Your task to perform on an android device: Open Youtube and go to the subscriptions tab Image 0: 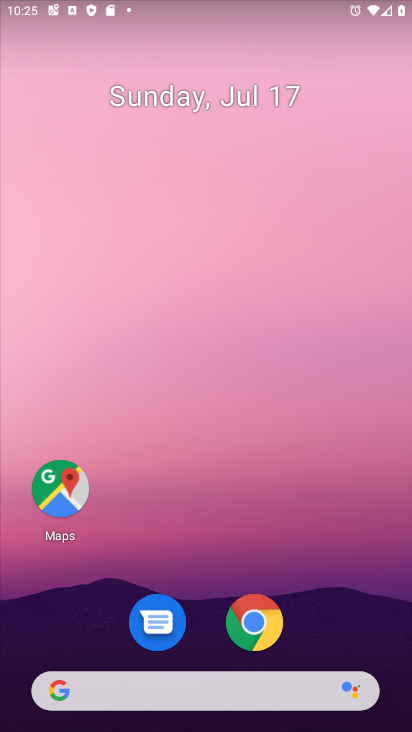
Step 0: drag from (206, 728) to (269, 59)
Your task to perform on an android device: Open Youtube and go to the subscriptions tab Image 1: 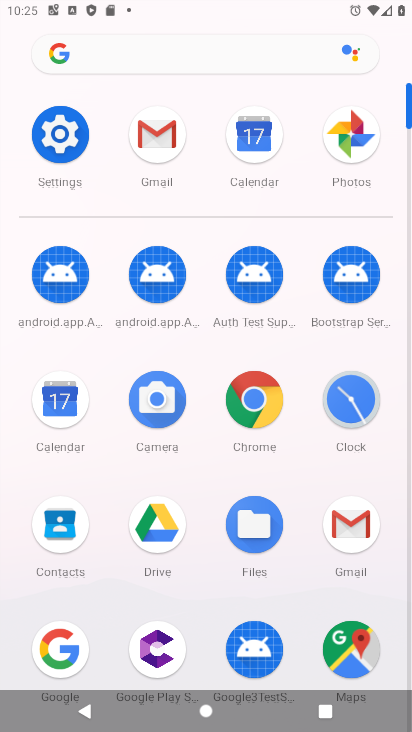
Step 1: drag from (252, 636) to (205, 85)
Your task to perform on an android device: Open Youtube and go to the subscriptions tab Image 2: 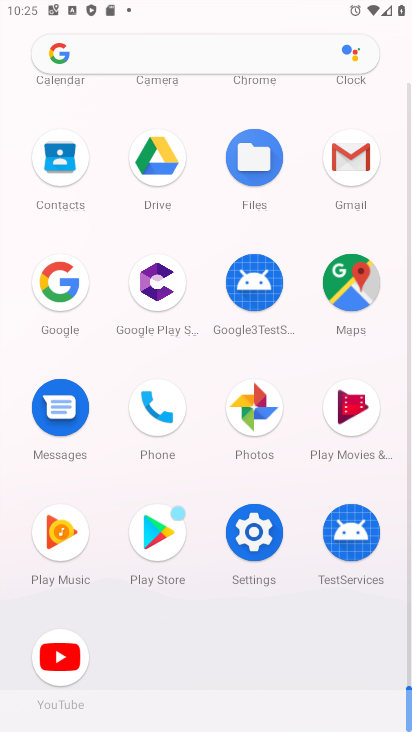
Step 2: click (63, 649)
Your task to perform on an android device: Open Youtube and go to the subscriptions tab Image 3: 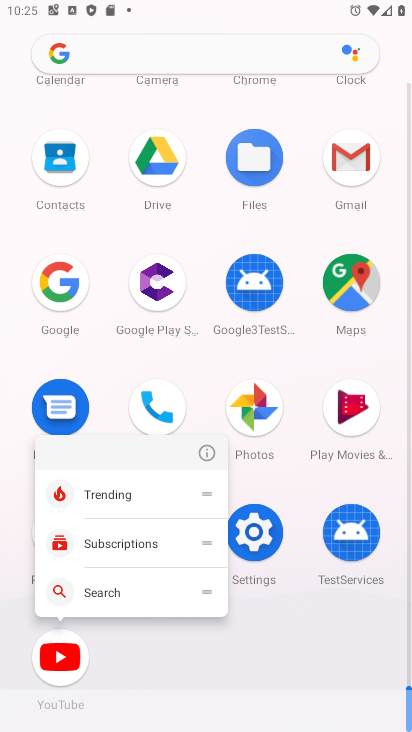
Step 3: click (65, 648)
Your task to perform on an android device: Open Youtube and go to the subscriptions tab Image 4: 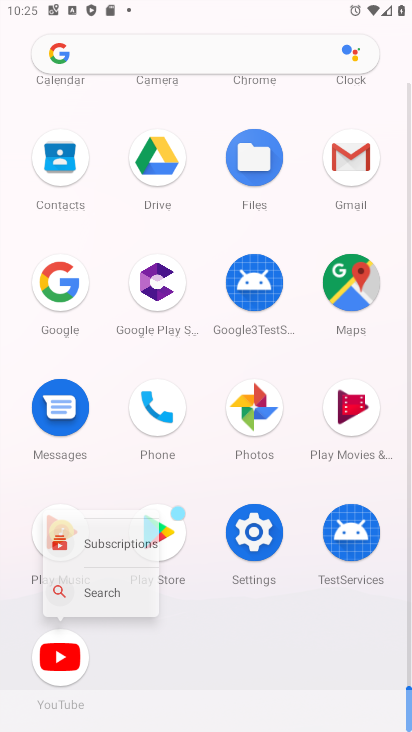
Step 4: click (65, 648)
Your task to perform on an android device: Open Youtube and go to the subscriptions tab Image 5: 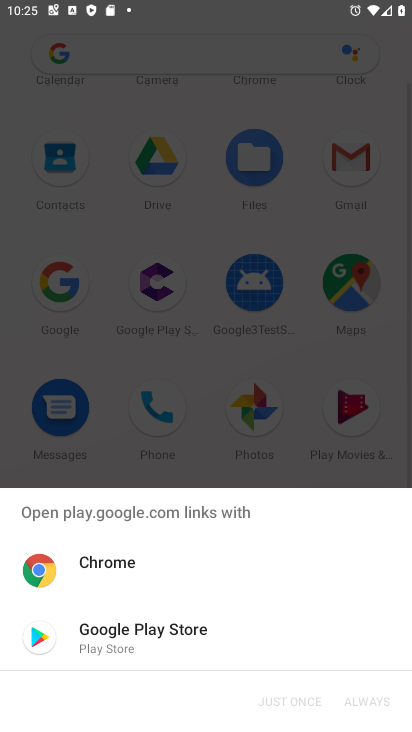
Step 5: click (339, 463)
Your task to perform on an android device: Open Youtube and go to the subscriptions tab Image 6: 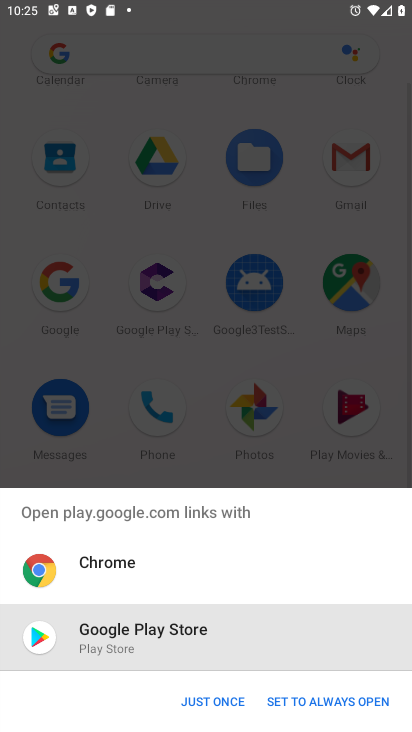
Step 6: click (310, 91)
Your task to perform on an android device: Open Youtube and go to the subscriptions tab Image 7: 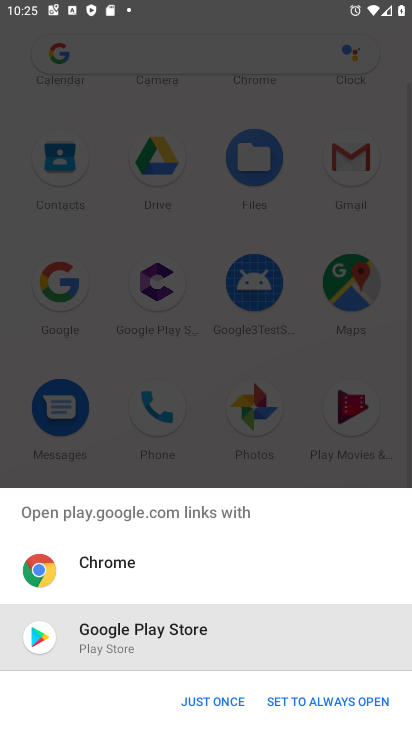
Step 7: press back button
Your task to perform on an android device: Open Youtube and go to the subscriptions tab Image 8: 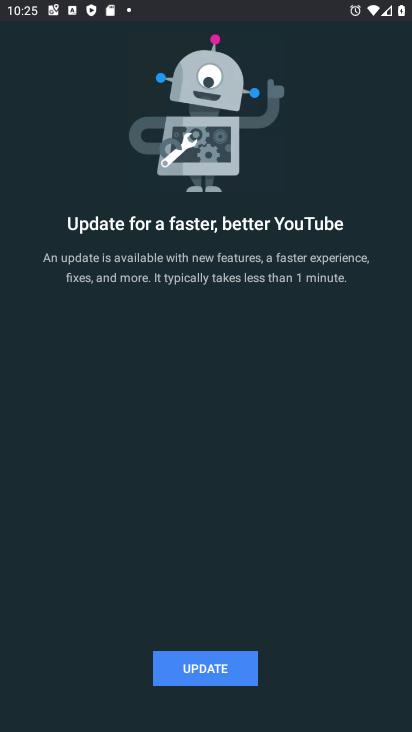
Step 8: click (195, 676)
Your task to perform on an android device: Open Youtube and go to the subscriptions tab Image 9: 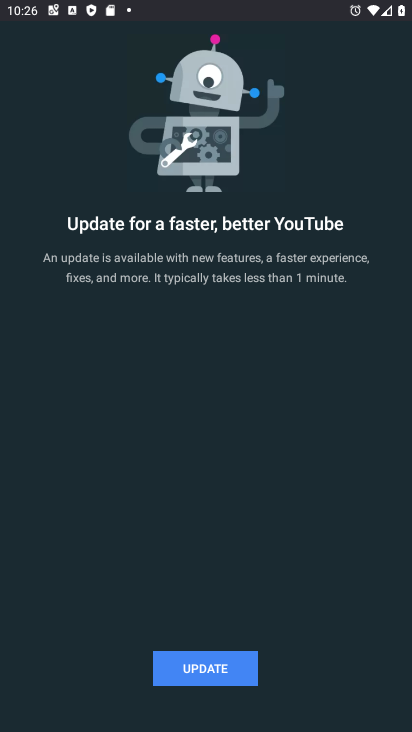
Step 9: click (222, 657)
Your task to perform on an android device: Open Youtube and go to the subscriptions tab Image 10: 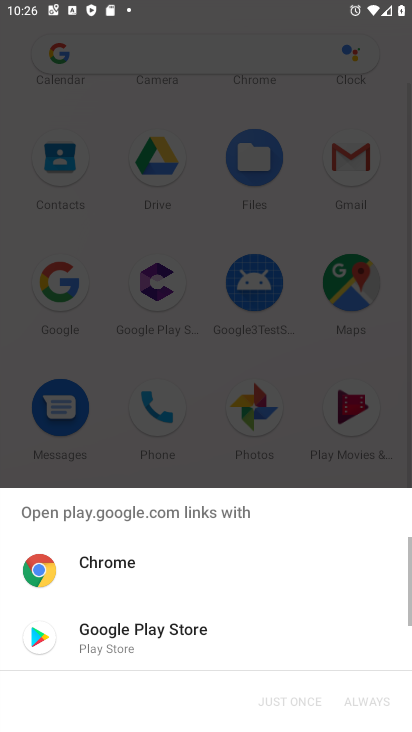
Step 10: click (161, 629)
Your task to perform on an android device: Open Youtube and go to the subscriptions tab Image 11: 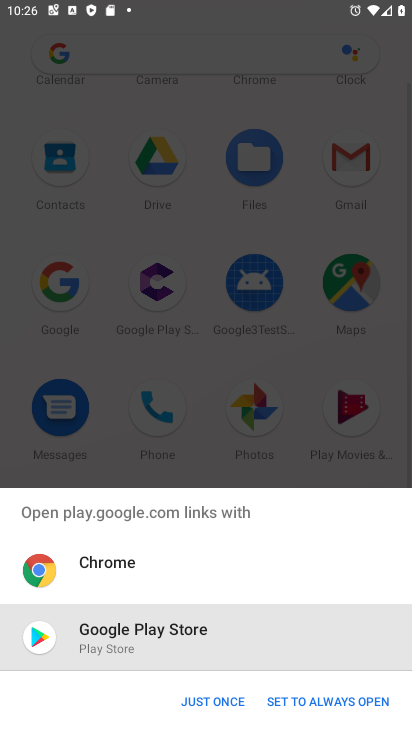
Step 11: click (209, 697)
Your task to perform on an android device: Open Youtube and go to the subscriptions tab Image 12: 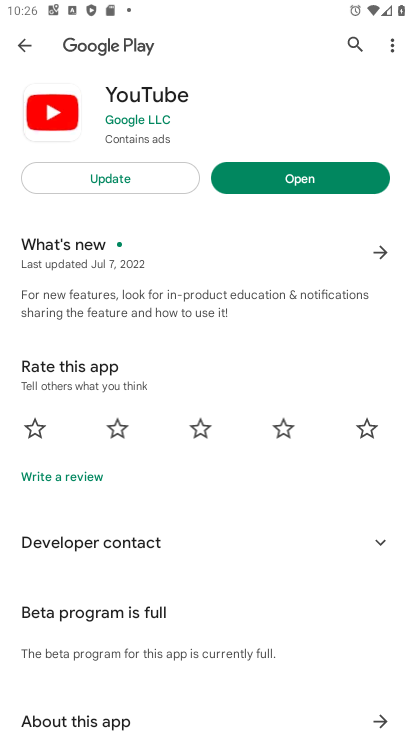
Step 12: click (125, 173)
Your task to perform on an android device: Open Youtube and go to the subscriptions tab Image 13: 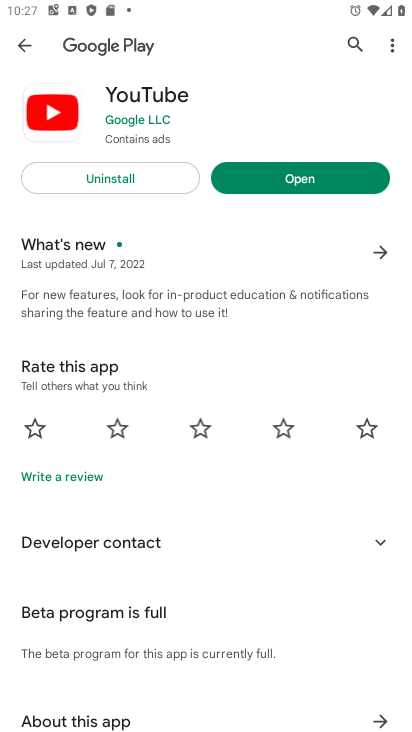
Step 13: click (284, 183)
Your task to perform on an android device: Open Youtube and go to the subscriptions tab Image 14: 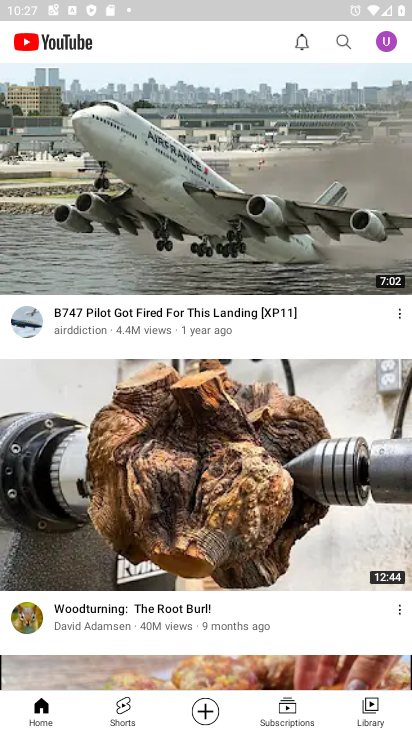
Step 14: click (284, 715)
Your task to perform on an android device: Open Youtube and go to the subscriptions tab Image 15: 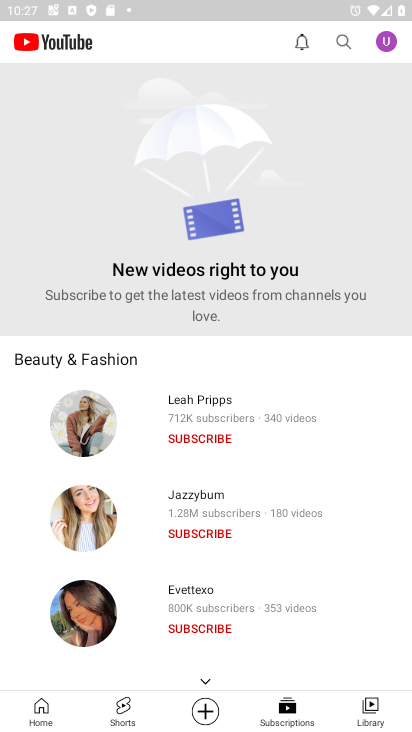
Step 15: task complete